Your task to perform on an android device: Add apple airpods pro to the cart on amazon.com Image 0: 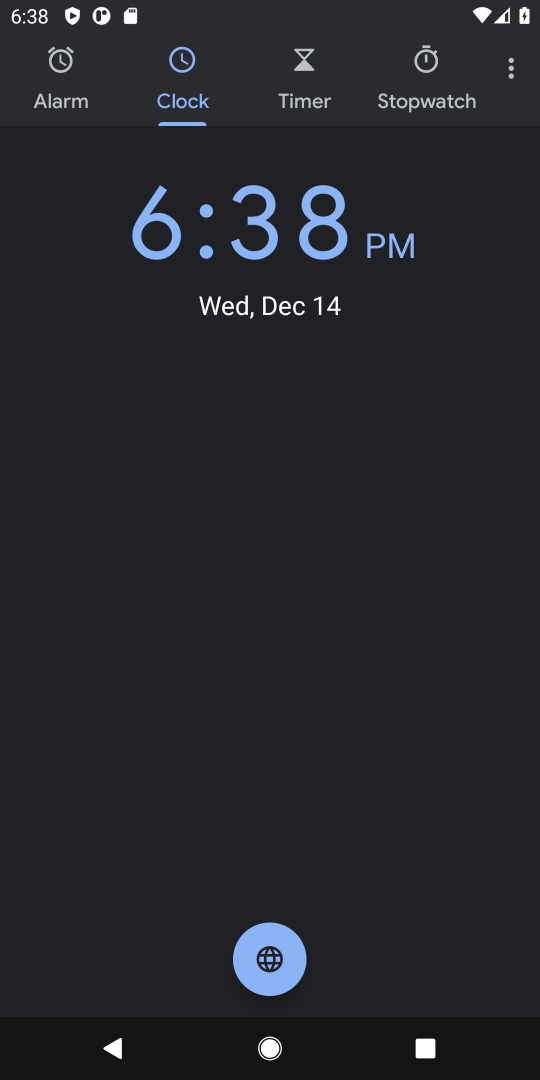
Step 0: press home button
Your task to perform on an android device: Add apple airpods pro to the cart on amazon.com Image 1: 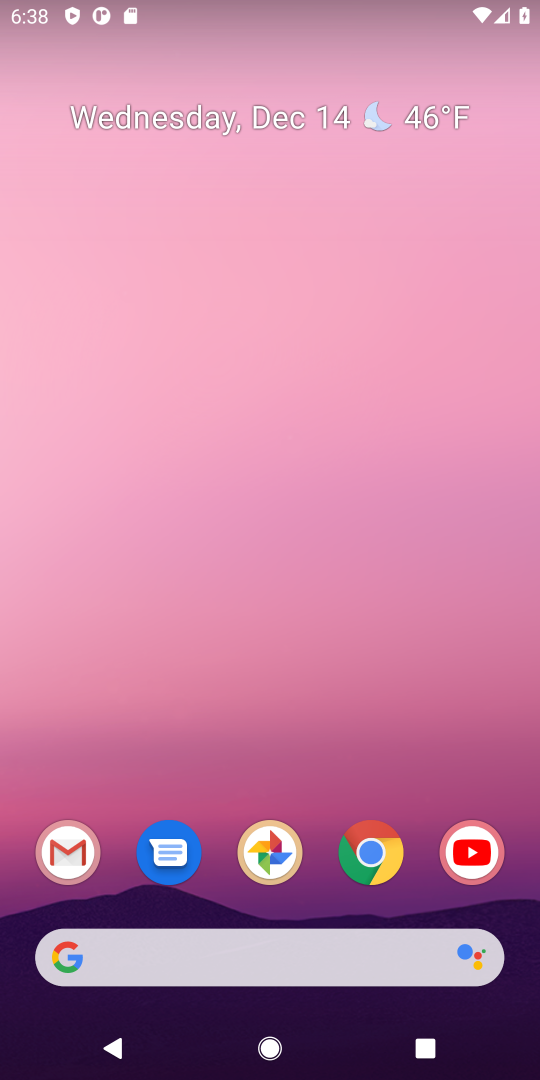
Step 1: click (366, 851)
Your task to perform on an android device: Add apple airpods pro to the cart on amazon.com Image 2: 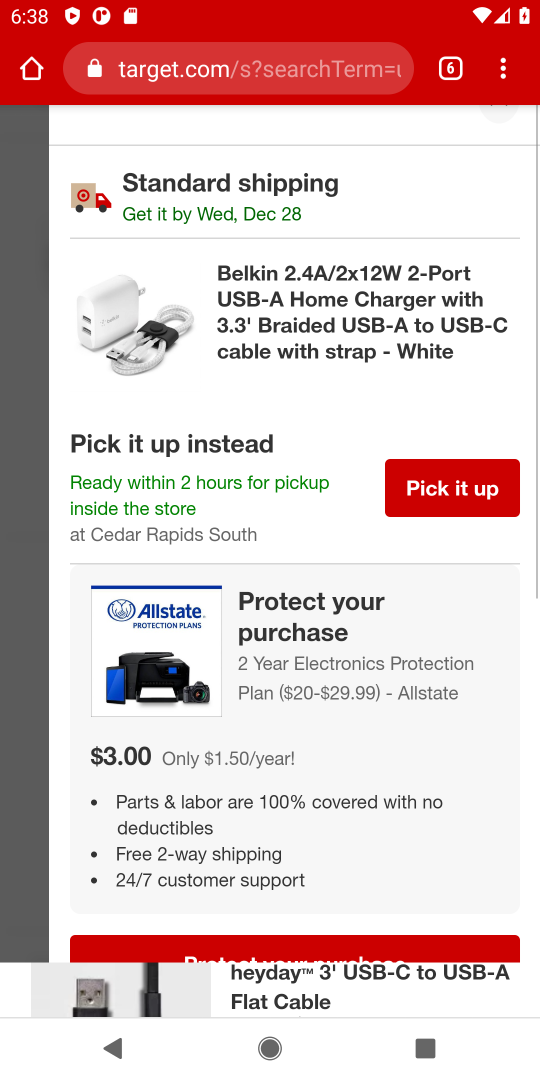
Step 2: click (454, 67)
Your task to perform on an android device: Add apple airpods pro to the cart on amazon.com Image 3: 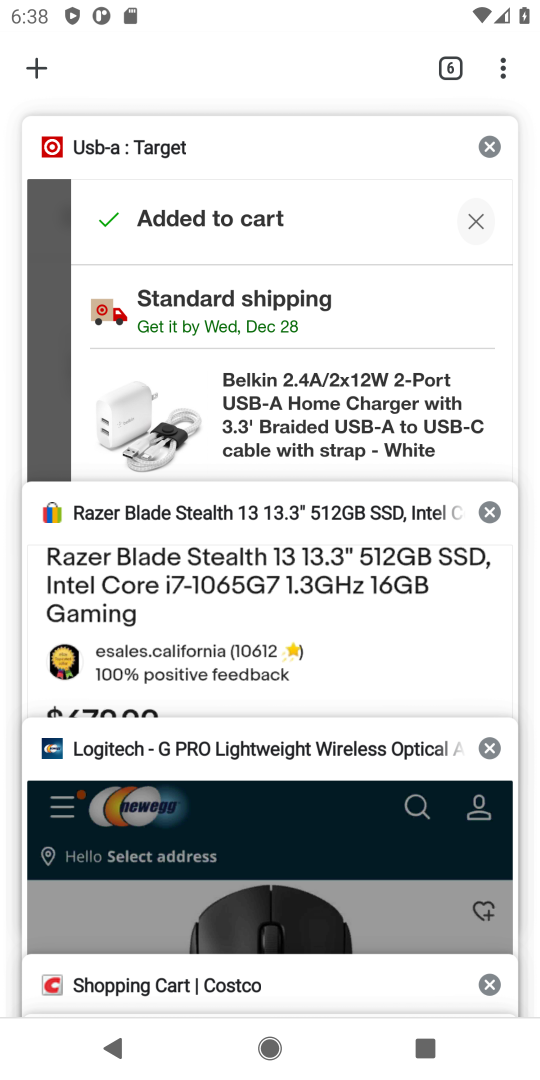
Step 3: drag from (268, 914) to (360, 210)
Your task to perform on an android device: Add apple airpods pro to the cart on amazon.com Image 4: 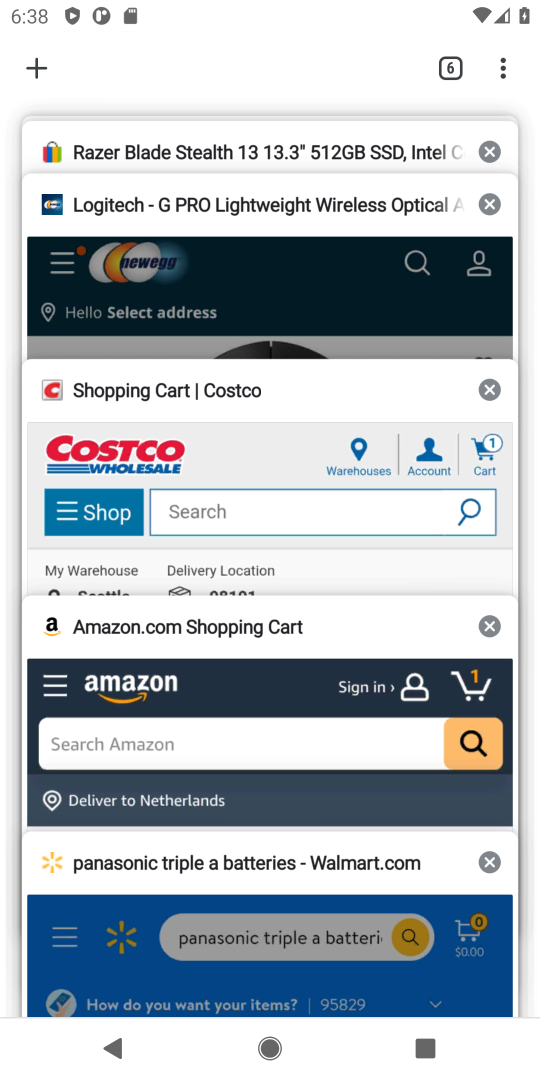
Step 4: click (168, 768)
Your task to perform on an android device: Add apple airpods pro to the cart on amazon.com Image 5: 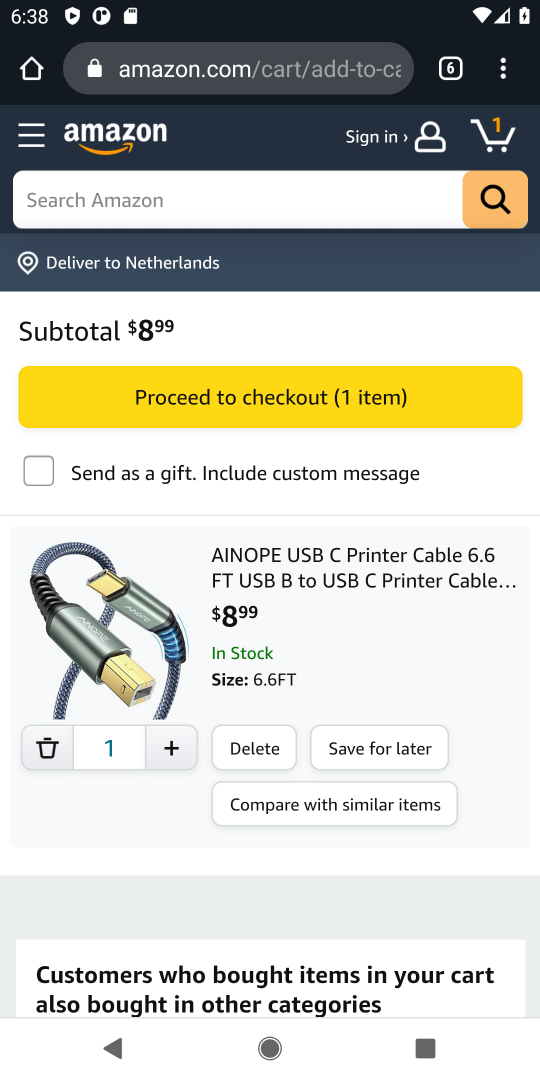
Step 5: click (107, 192)
Your task to perform on an android device: Add apple airpods pro to the cart on amazon.com Image 6: 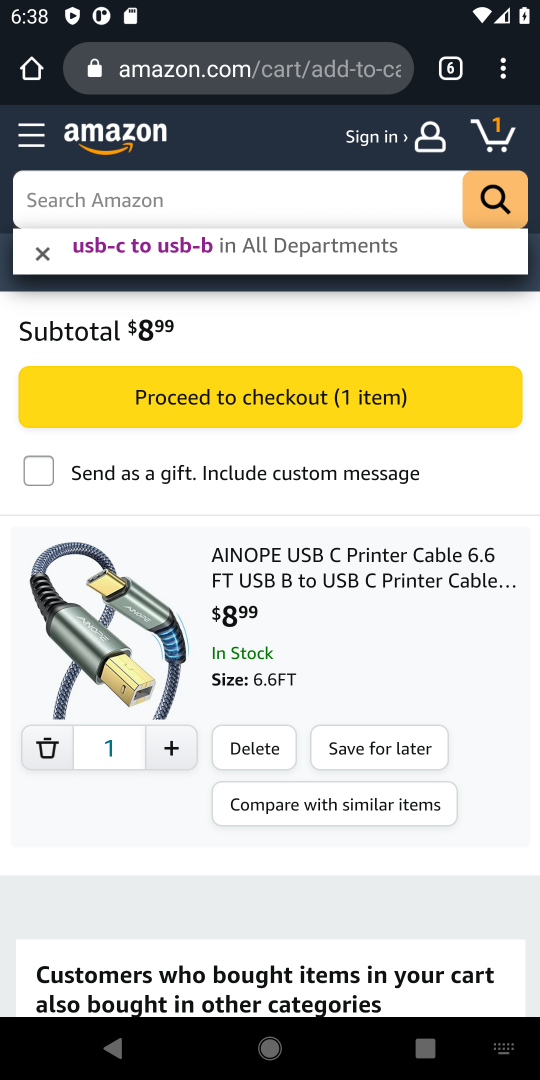
Step 6: type "apple airpods pro"
Your task to perform on an android device: Add apple airpods pro to the cart on amazon.com Image 7: 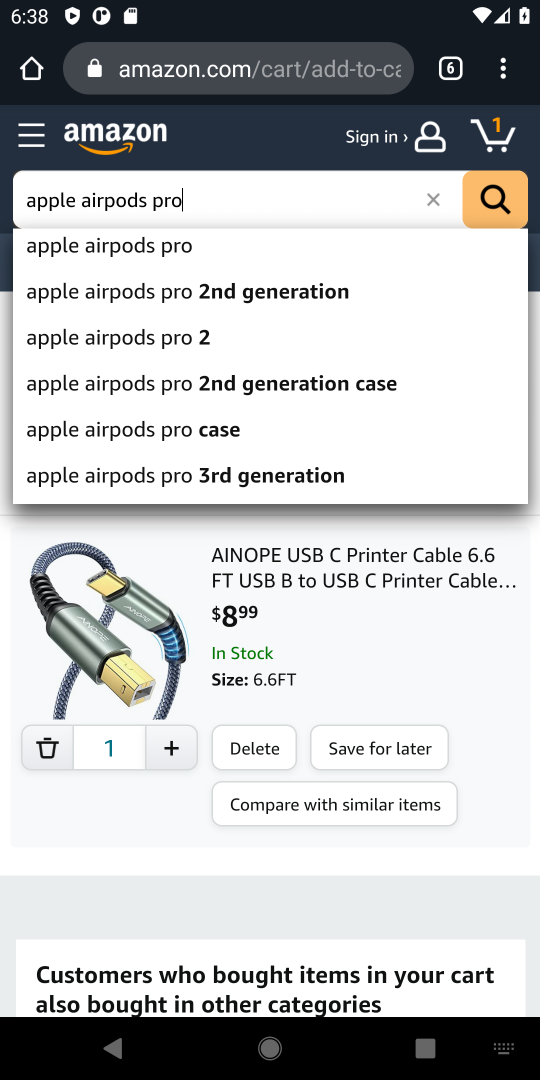
Step 7: click (112, 247)
Your task to perform on an android device: Add apple airpods pro to the cart on amazon.com Image 8: 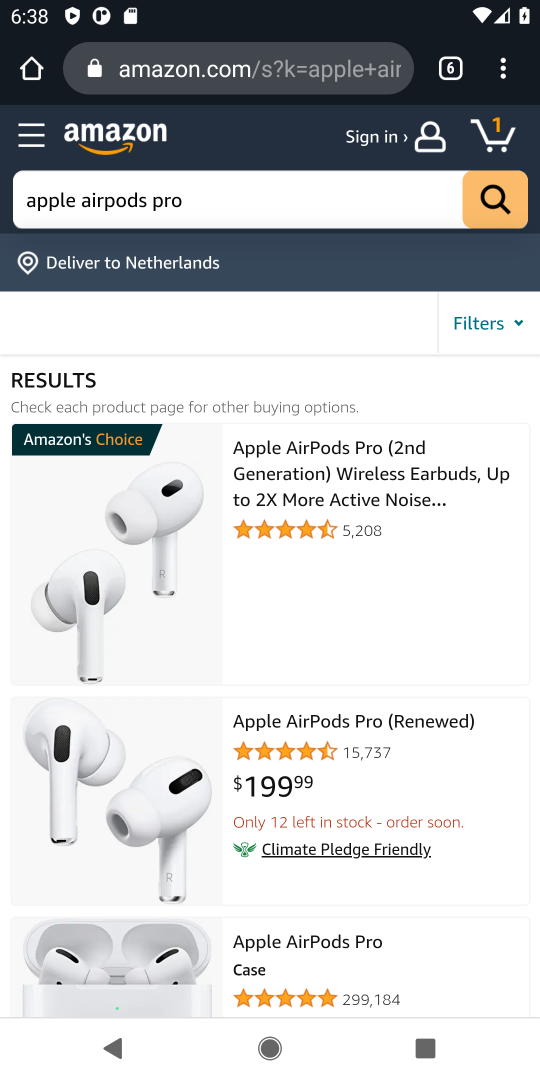
Step 8: click (341, 490)
Your task to perform on an android device: Add apple airpods pro to the cart on amazon.com Image 9: 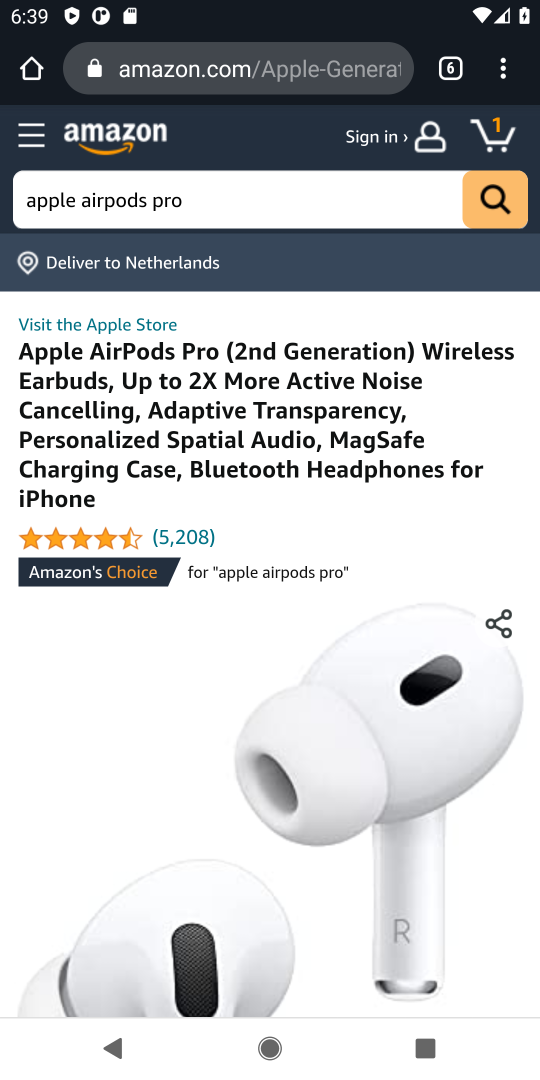
Step 9: drag from (370, 966) to (354, 436)
Your task to perform on an android device: Add apple airpods pro to the cart on amazon.com Image 10: 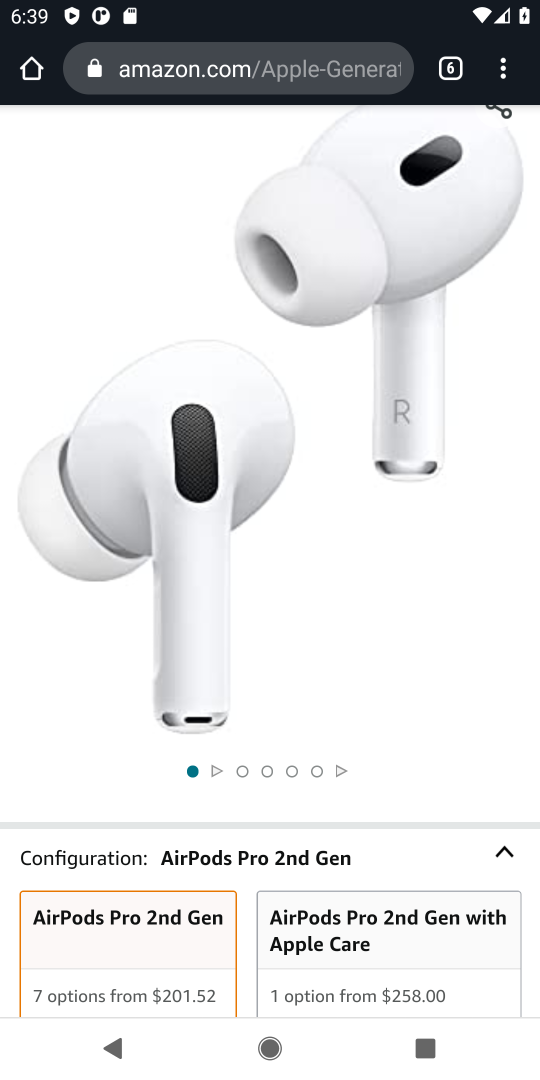
Step 10: drag from (318, 857) to (347, 393)
Your task to perform on an android device: Add apple airpods pro to the cart on amazon.com Image 11: 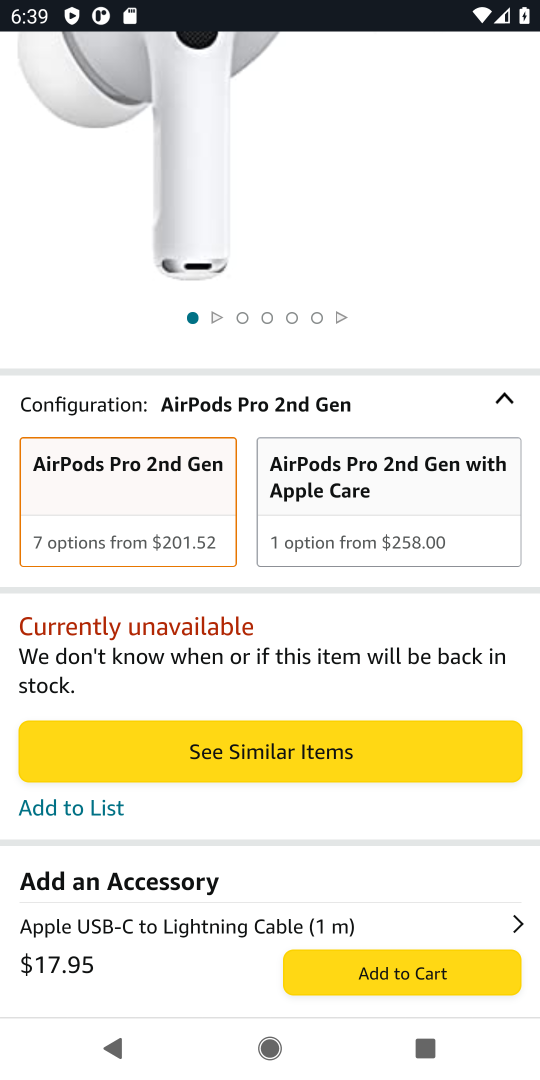
Step 11: drag from (390, 890) to (406, 496)
Your task to perform on an android device: Add apple airpods pro to the cart on amazon.com Image 12: 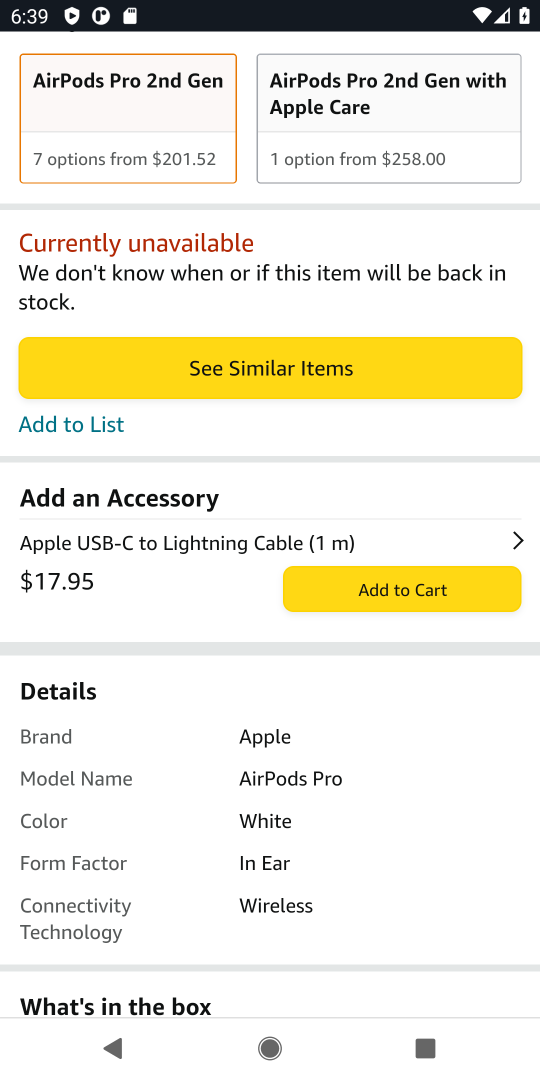
Step 12: drag from (245, 973) to (322, 380)
Your task to perform on an android device: Add apple airpods pro to the cart on amazon.com Image 13: 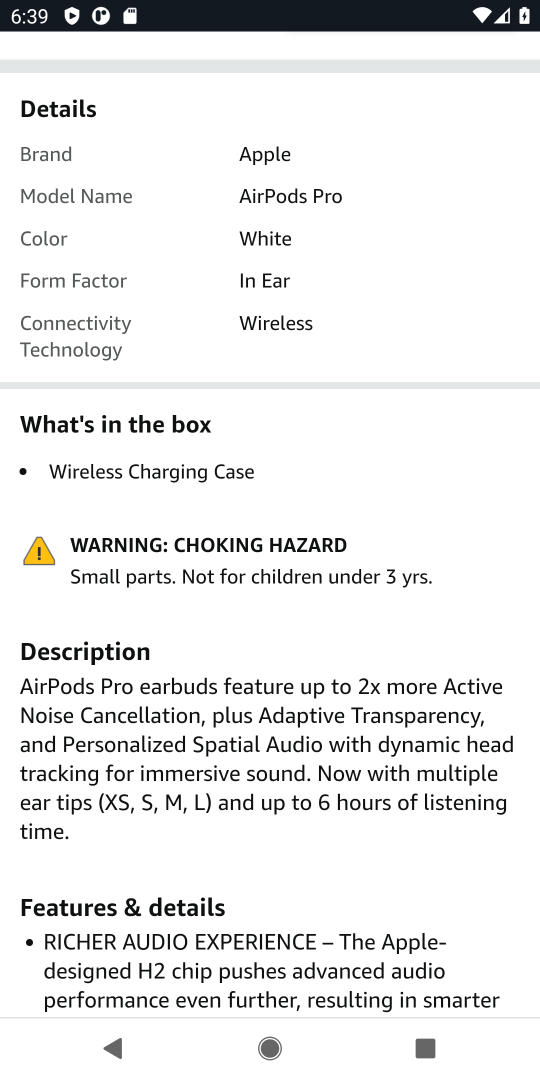
Step 13: drag from (323, 780) to (330, 229)
Your task to perform on an android device: Add apple airpods pro to the cart on amazon.com Image 14: 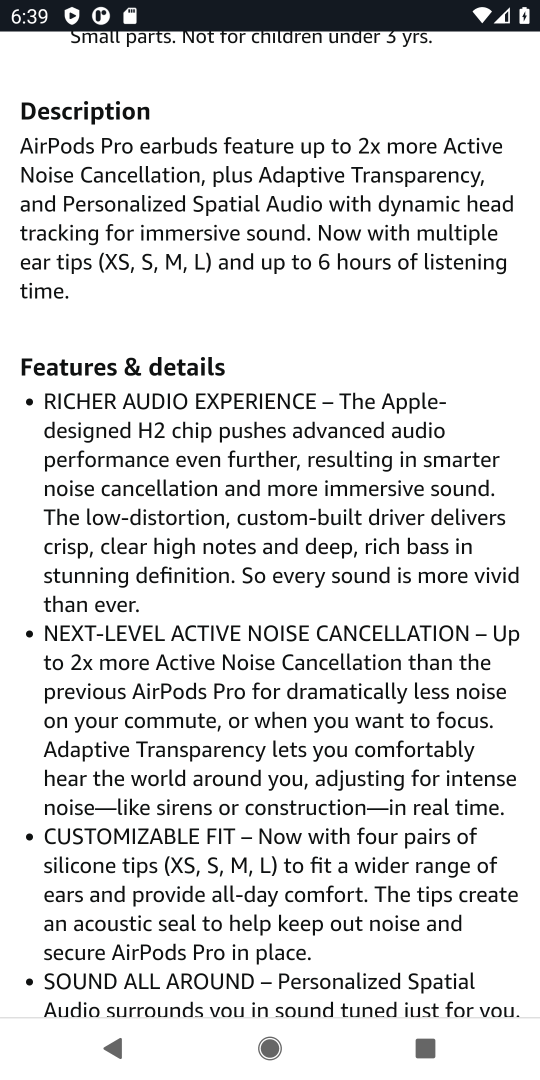
Step 14: drag from (330, 229) to (390, 892)
Your task to perform on an android device: Add apple airpods pro to the cart on amazon.com Image 15: 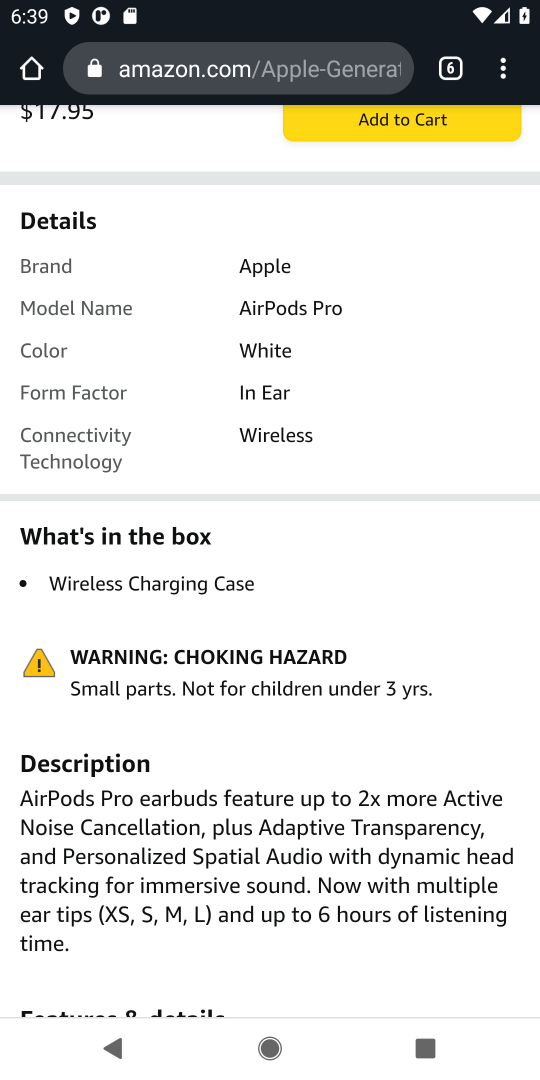
Step 15: drag from (411, 234) to (379, 597)
Your task to perform on an android device: Add apple airpods pro to the cart on amazon.com Image 16: 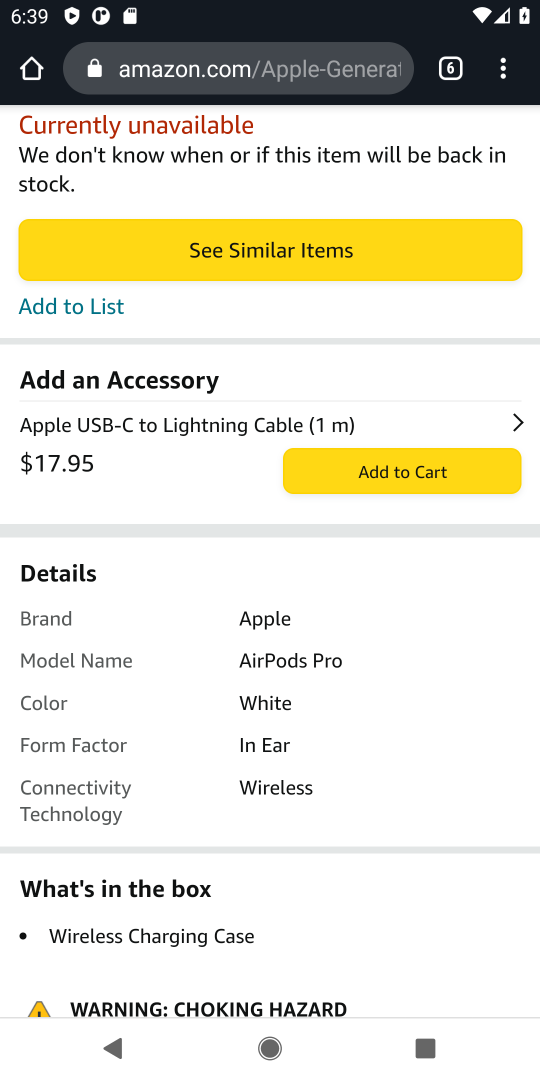
Step 16: click (298, 244)
Your task to perform on an android device: Add apple airpods pro to the cart on amazon.com Image 17: 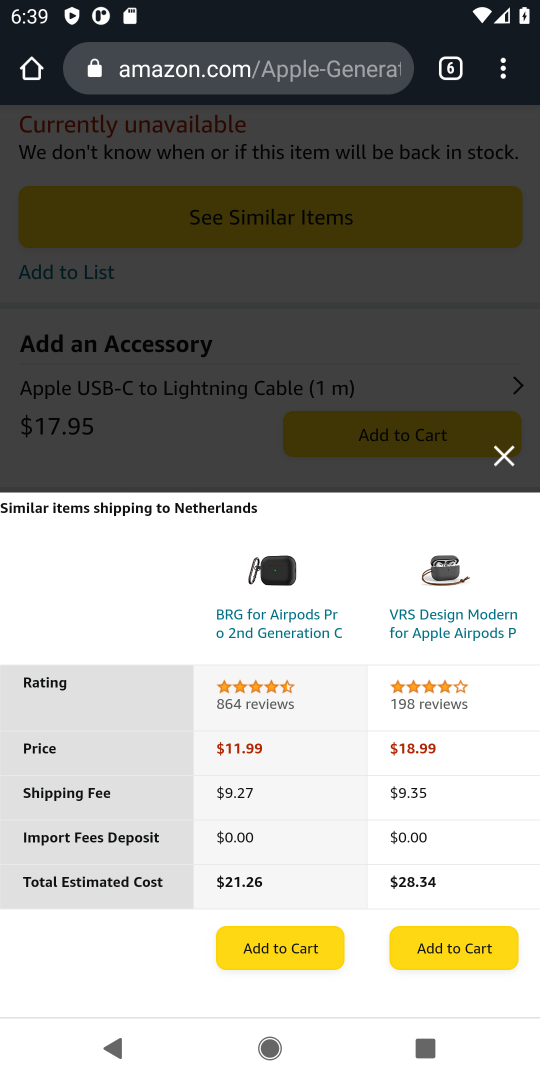
Step 17: click (515, 460)
Your task to perform on an android device: Add apple airpods pro to the cart on amazon.com Image 18: 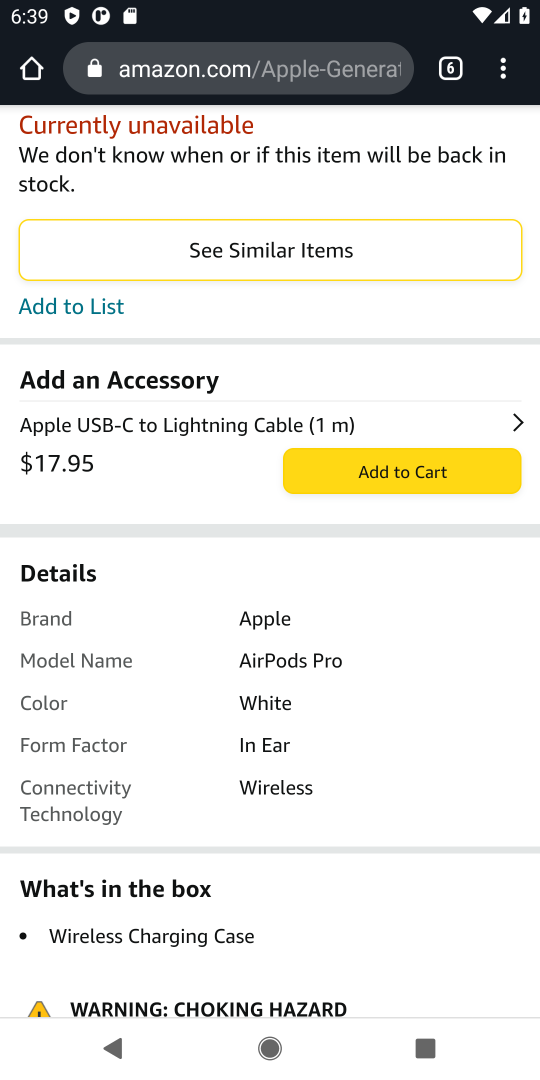
Step 18: press back button
Your task to perform on an android device: Add apple airpods pro to the cart on amazon.com Image 19: 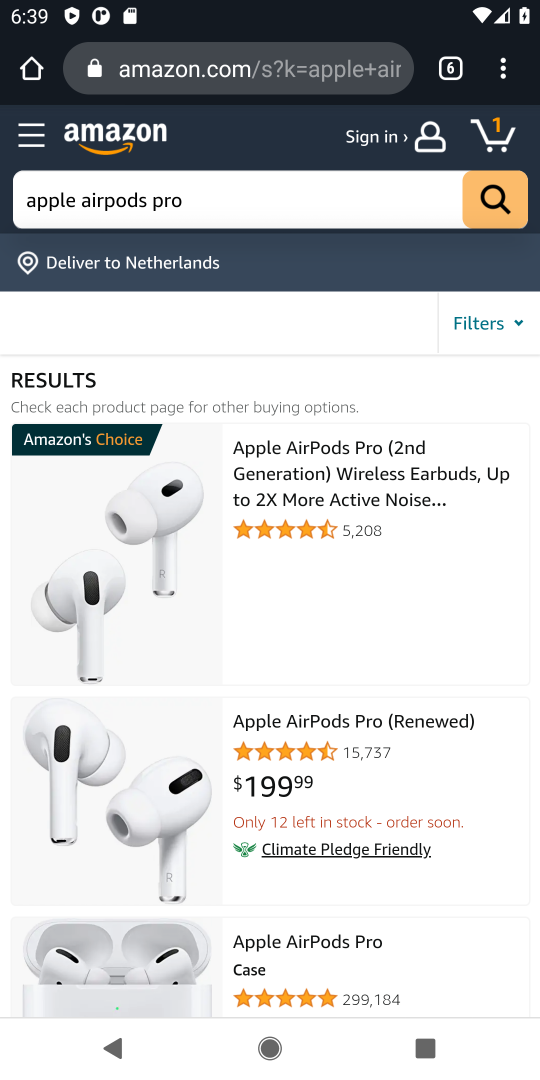
Step 19: click (376, 723)
Your task to perform on an android device: Add apple airpods pro to the cart on amazon.com Image 20: 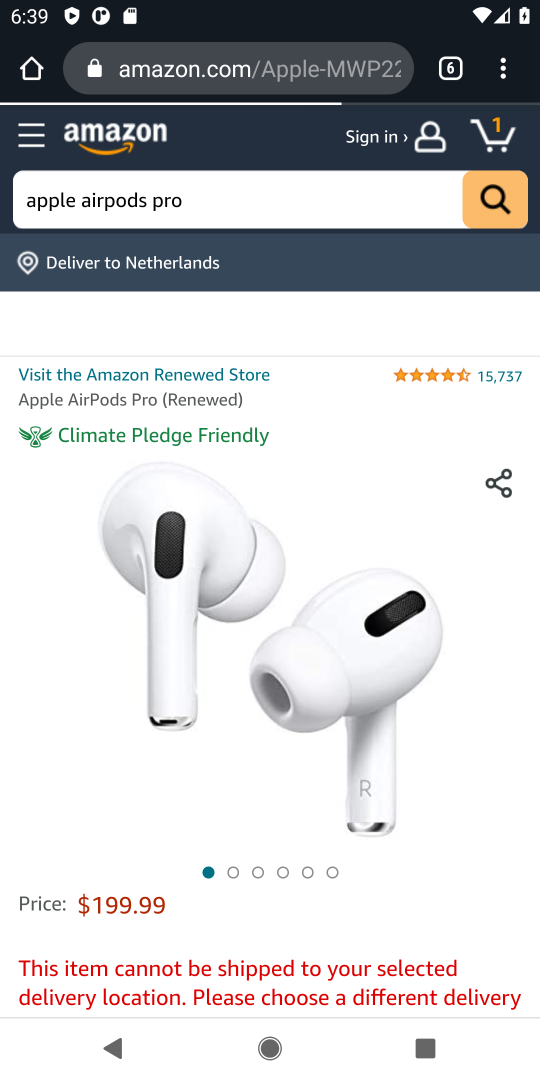
Step 20: task complete